Your task to perform on an android device: check battery use Image 0: 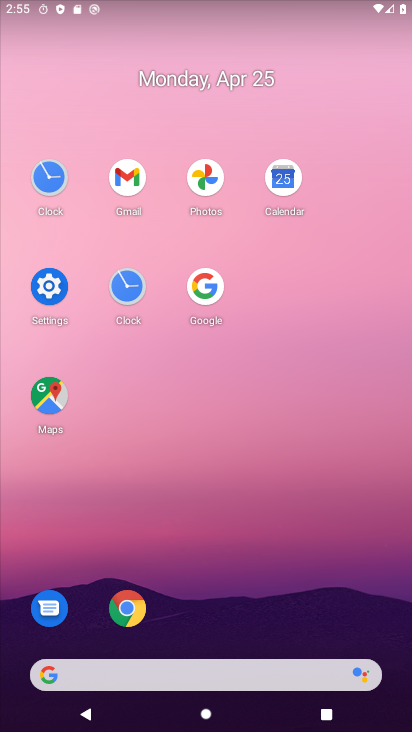
Step 0: click (50, 286)
Your task to perform on an android device: check battery use Image 1: 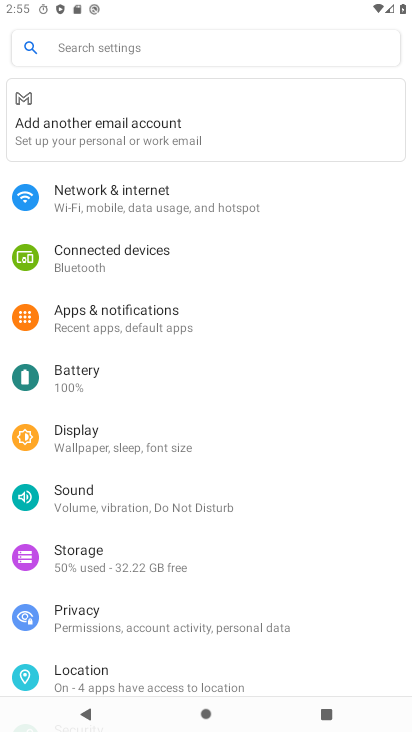
Step 1: click (123, 372)
Your task to perform on an android device: check battery use Image 2: 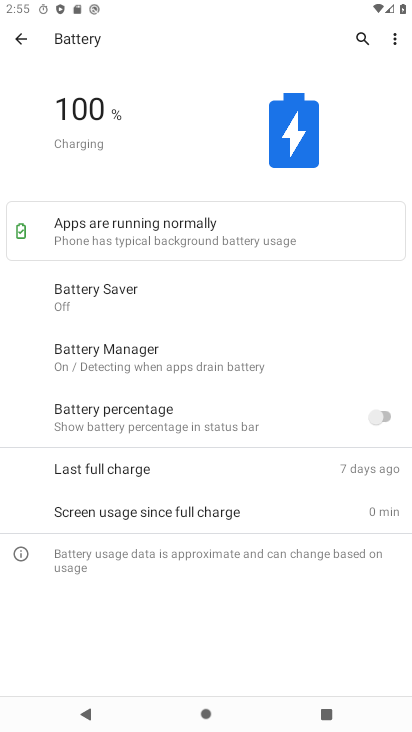
Step 2: task complete